Your task to perform on an android device: Open Chrome and go to settings Image 0: 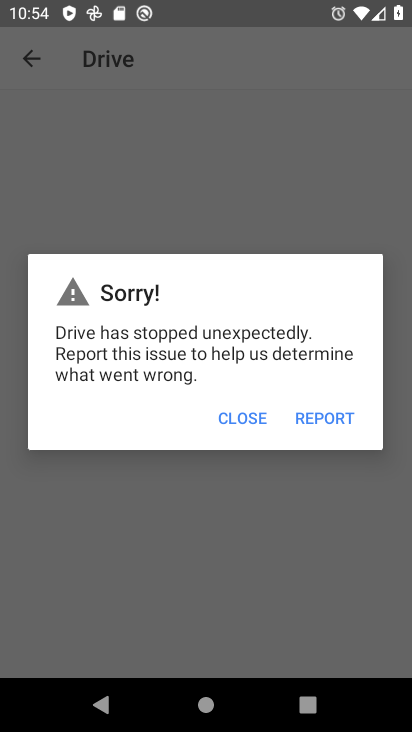
Step 0: click (228, 415)
Your task to perform on an android device: Open Chrome and go to settings Image 1: 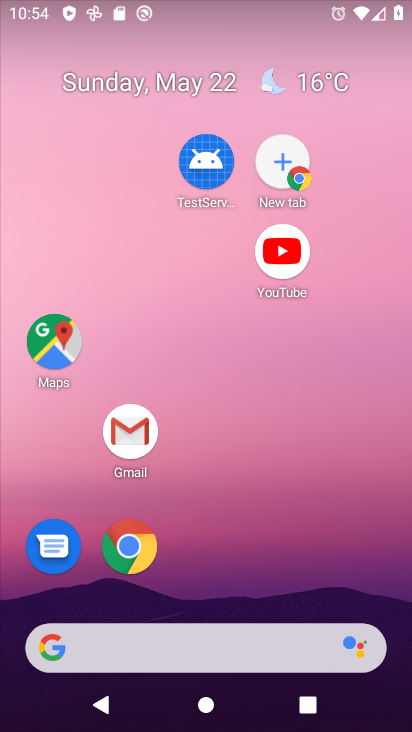
Step 1: drag from (255, 702) to (234, 261)
Your task to perform on an android device: Open Chrome and go to settings Image 2: 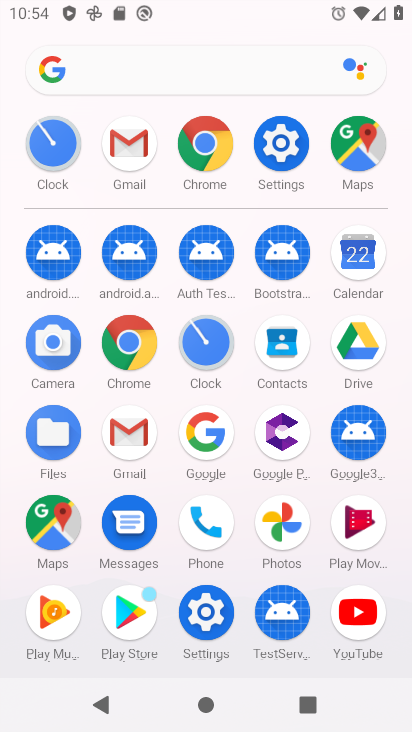
Step 2: click (215, 141)
Your task to perform on an android device: Open Chrome and go to settings Image 3: 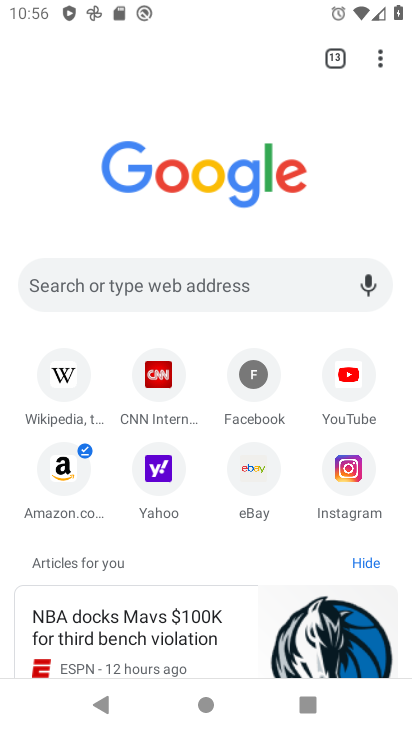
Step 3: drag from (380, 60) to (158, 483)
Your task to perform on an android device: Open Chrome and go to settings Image 4: 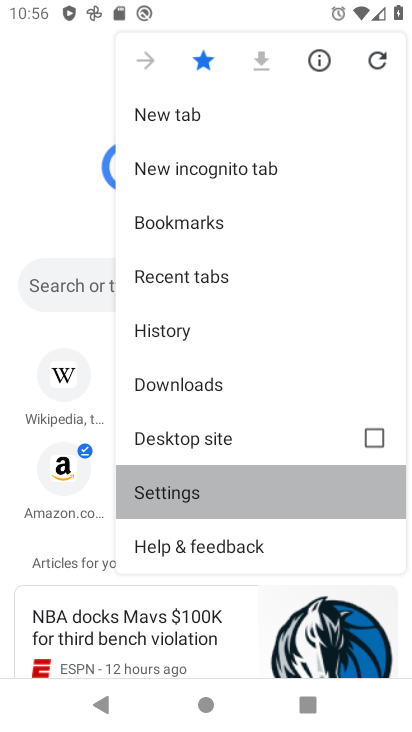
Step 4: click (158, 483)
Your task to perform on an android device: Open Chrome and go to settings Image 5: 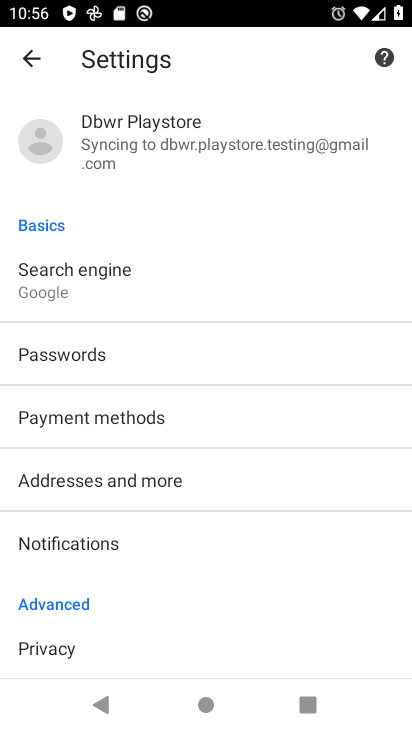
Step 5: task complete